Your task to perform on an android device: Go to notification settings Image 0: 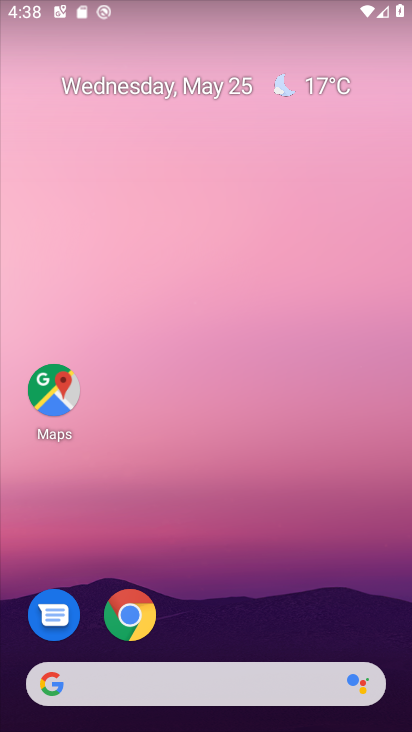
Step 0: drag from (378, 520) to (247, 22)
Your task to perform on an android device: Go to notification settings Image 1: 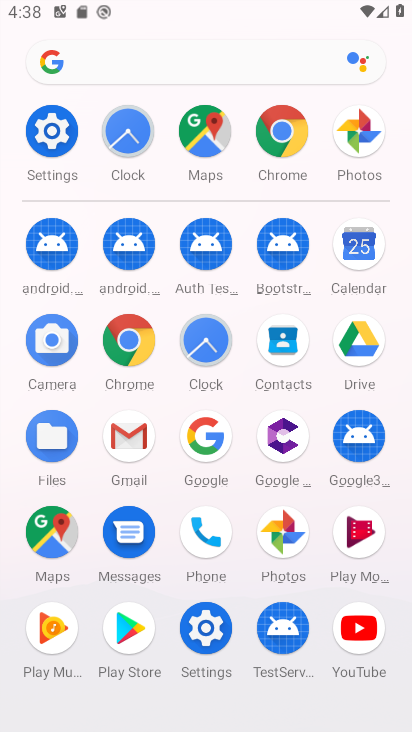
Step 1: click (42, 103)
Your task to perform on an android device: Go to notification settings Image 2: 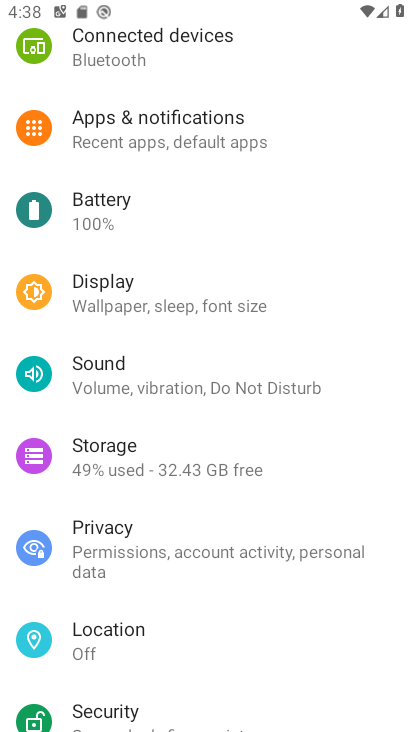
Step 2: click (237, 145)
Your task to perform on an android device: Go to notification settings Image 3: 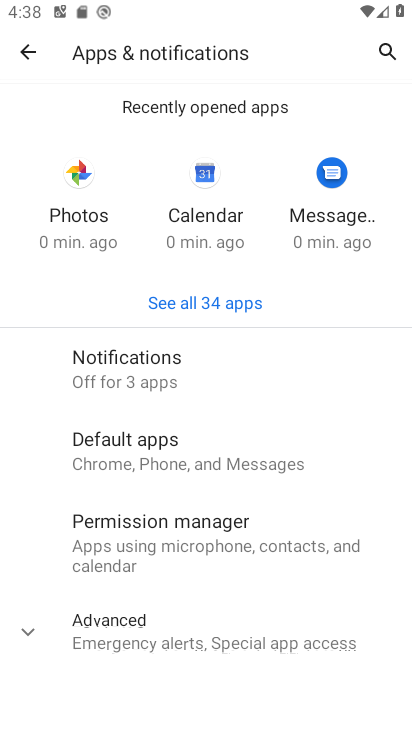
Step 3: task complete